Your task to perform on an android device: Show me productivity apps on the Play Store Image 0: 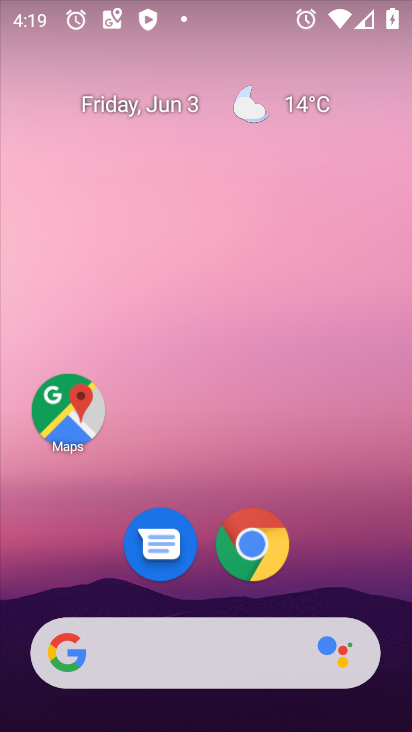
Step 0: drag from (401, 638) to (311, 99)
Your task to perform on an android device: Show me productivity apps on the Play Store Image 1: 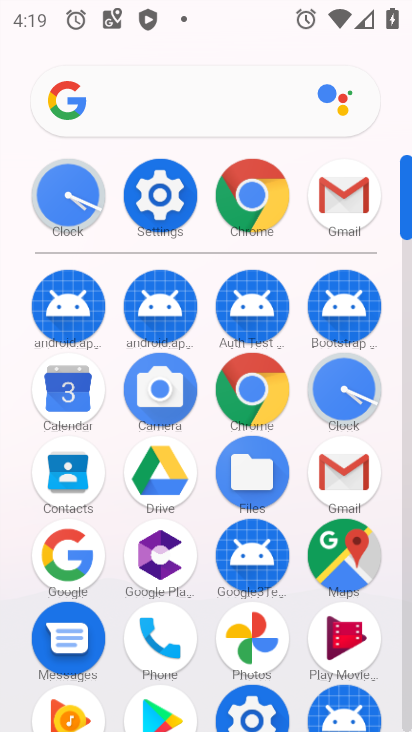
Step 1: click (406, 703)
Your task to perform on an android device: Show me productivity apps on the Play Store Image 2: 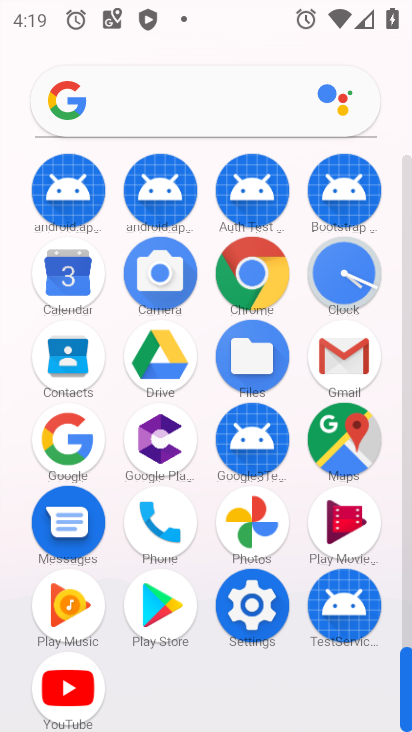
Step 2: click (170, 600)
Your task to perform on an android device: Show me productivity apps on the Play Store Image 3: 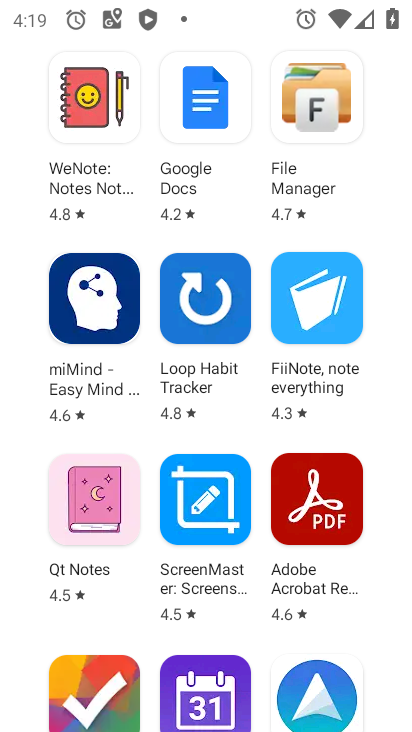
Step 3: task complete